Your task to perform on an android device: turn on javascript in the chrome app Image 0: 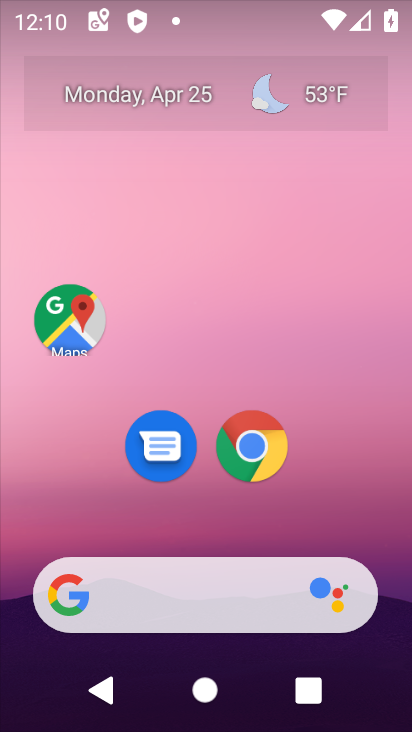
Step 0: drag from (192, 534) to (264, 6)
Your task to perform on an android device: turn on javascript in the chrome app Image 1: 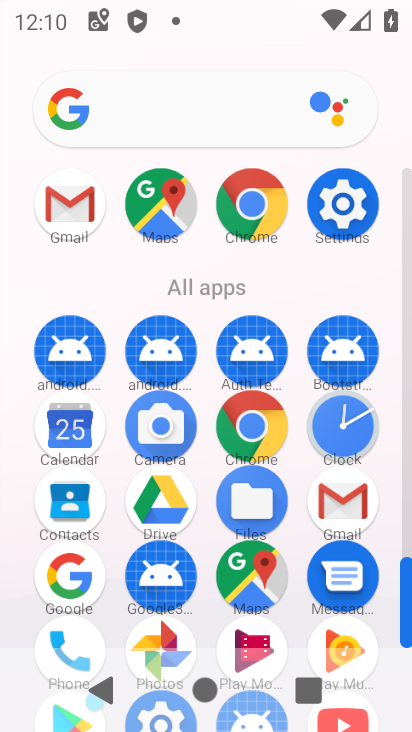
Step 1: click (248, 229)
Your task to perform on an android device: turn on javascript in the chrome app Image 2: 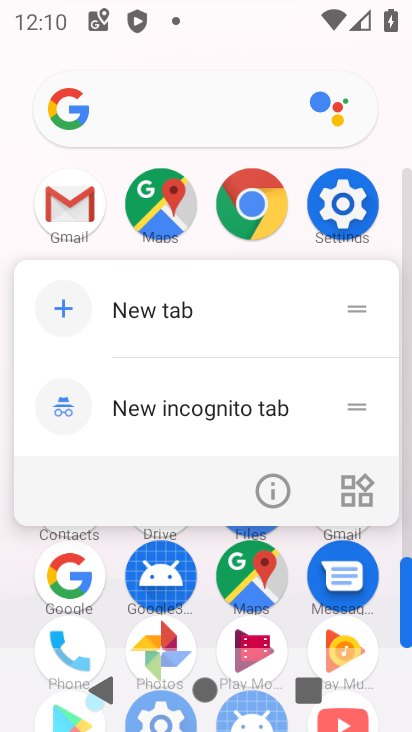
Step 2: click (252, 225)
Your task to perform on an android device: turn on javascript in the chrome app Image 3: 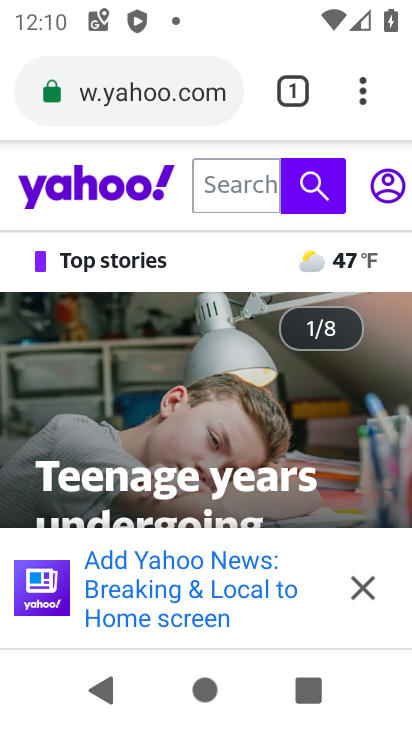
Step 3: click (364, 94)
Your task to perform on an android device: turn on javascript in the chrome app Image 4: 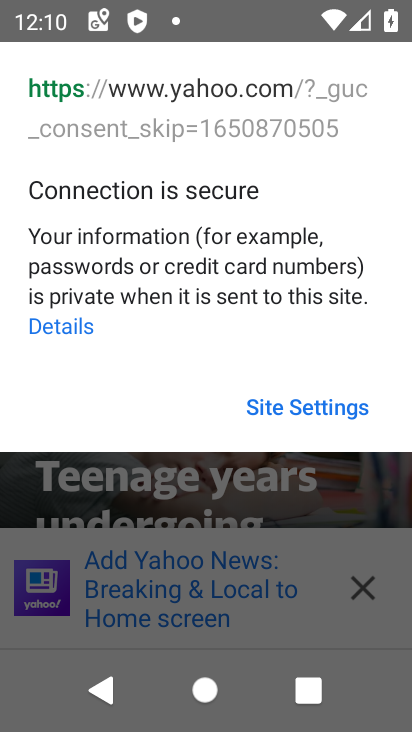
Step 4: click (365, 597)
Your task to perform on an android device: turn on javascript in the chrome app Image 5: 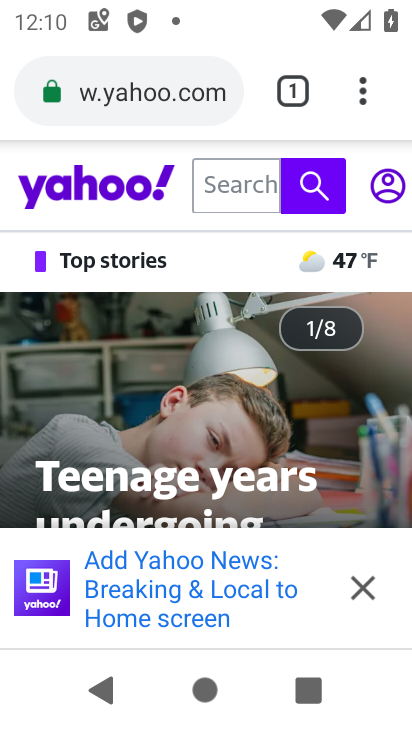
Step 5: click (363, 108)
Your task to perform on an android device: turn on javascript in the chrome app Image 6: 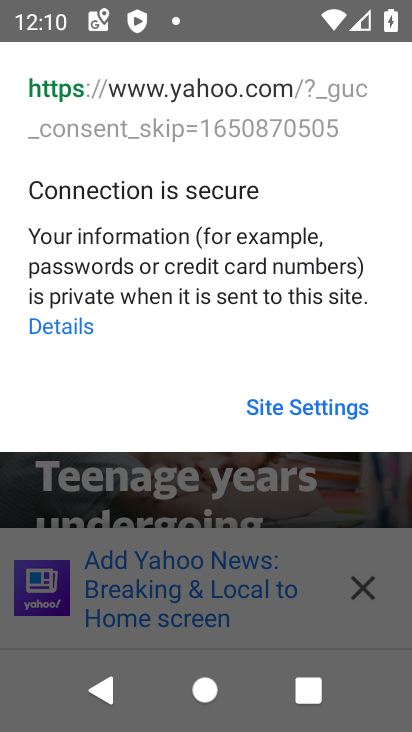
Step 6: click (288, 412)
Your task to perform on an android device: turn on javascript in the chrome app Image 7: 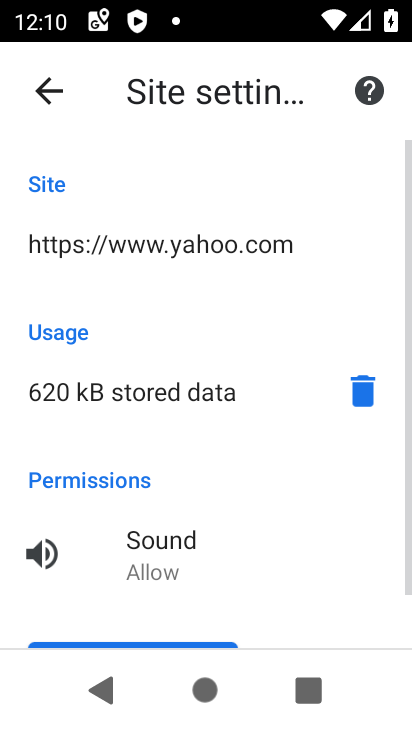
Step 7: drag from (149, 533) to (183, 159)
Your task to perform on an android device: turn on javascript in the chrome app Image 8: 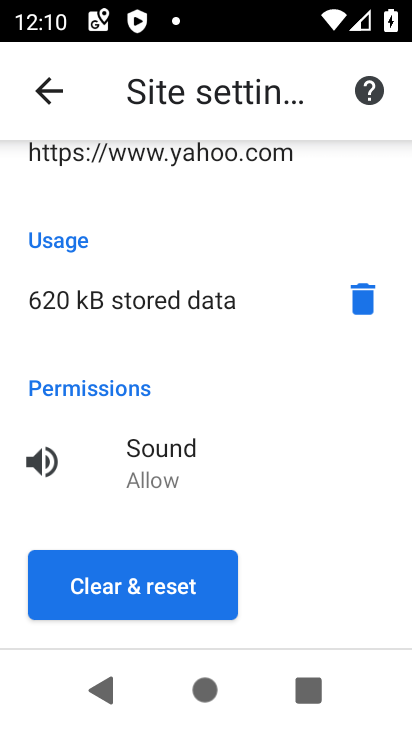
Step 8: click (136, 590)
Your task to perform on an android device: turn on javascript in the chrome app Image 9: 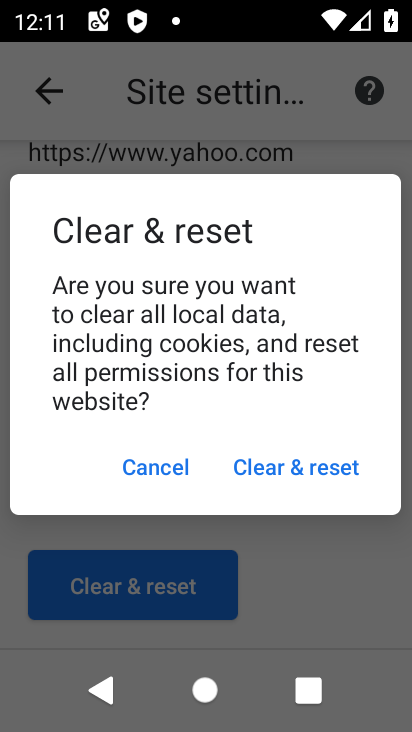
Step 9: click (278, 474)
Your task to perform on an android device: turn on javascript in the chrome app Image 10: 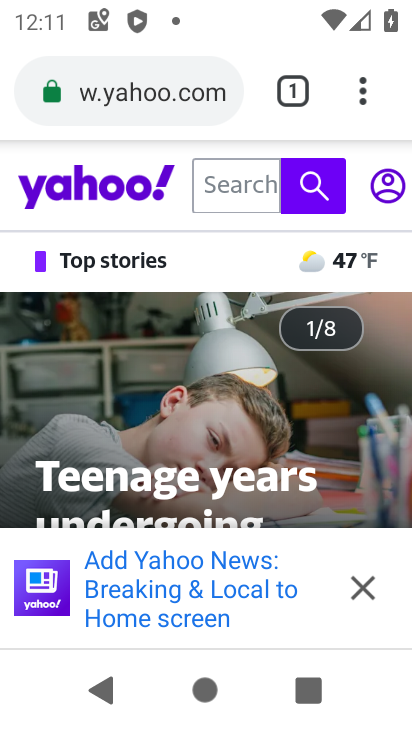
Step 10: click (363, 91)
Your task to perform on an android device: turn on javascript in the chrome app Image 11: 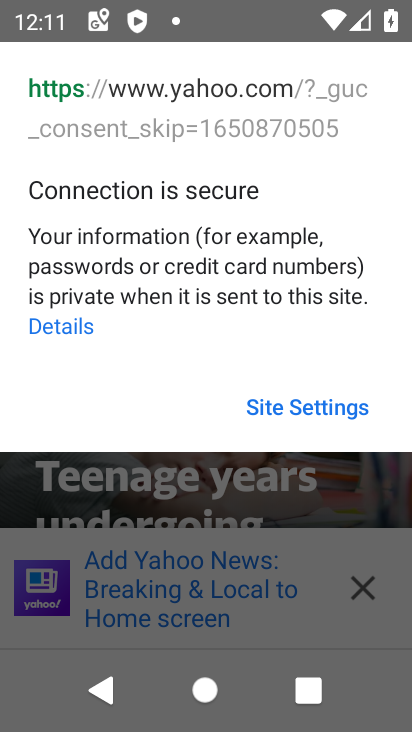
Step 11: task complete